Your task to perform on an android device: manage bookmarks in the chrome app Image 0: 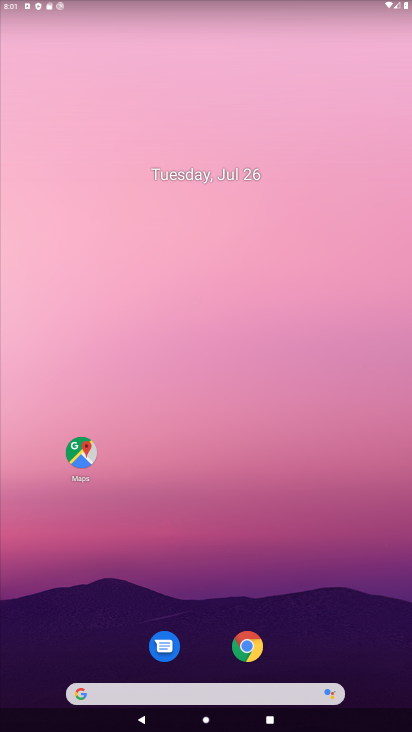
Step 0: click (63, 62)
Your task to perform on an android device: manage bookmarks in the chrome app Image 1: 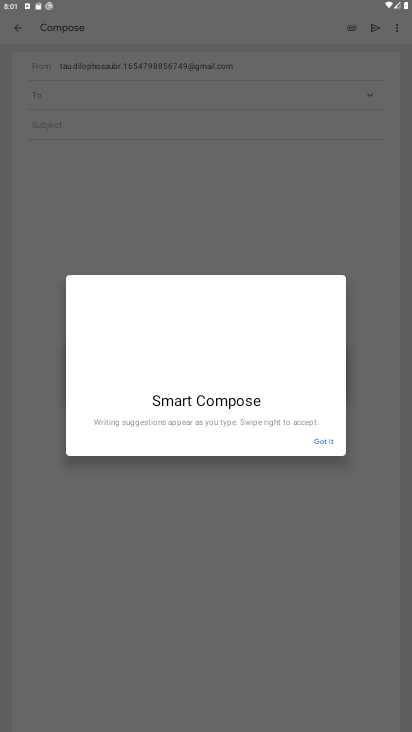
Step 1: press home button
Your task to perform on an android device: manage bookmarks in the chrome app Image 2: 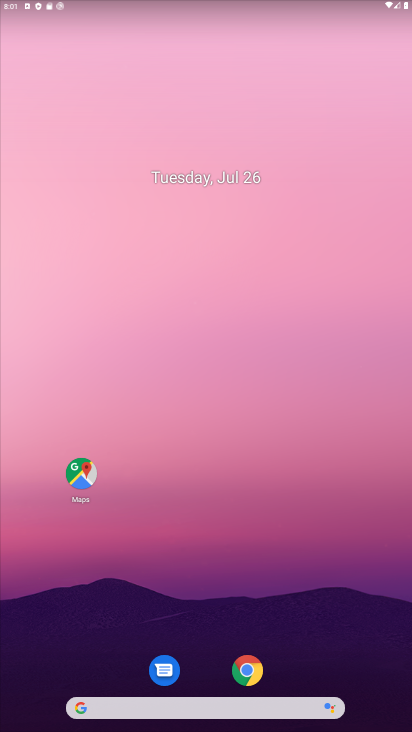
Step 2: click (247, 660)
Your task to perform on an android device: manage bookmarks in the chrome app Image 3: 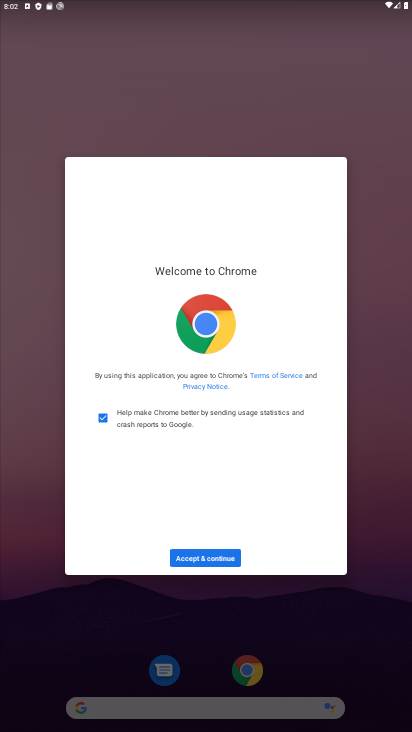
Step 3: click (215, 551)
Your task to perform on an android device: manage bookmarks in the chrome app Image 4: 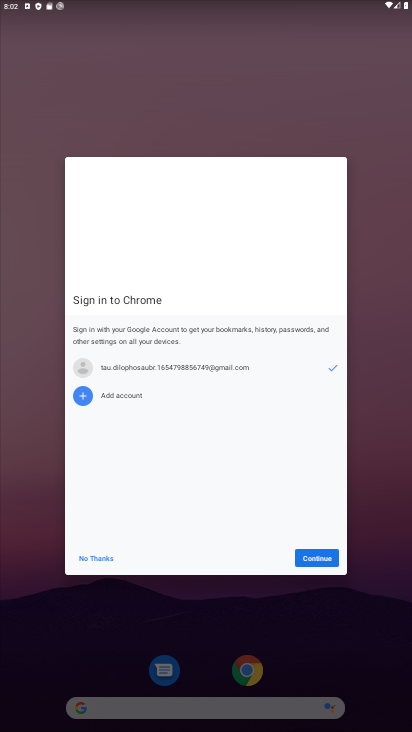
Step 4: click (331, 556)
Your task to perform on an android device: manage bookmarks in the chrome app Image 5: 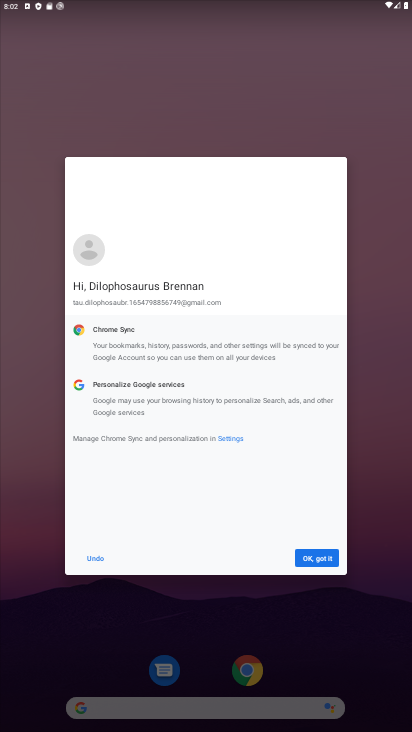
Step 5: click (329, 555)
Your task to perform on an android device: manage bookmarks in the chrome app Image 6: 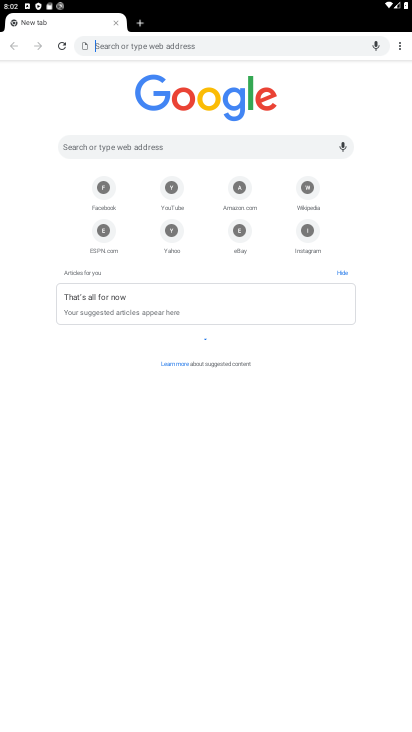
Step 6: click (394, 43)
Your task to perform on an android device: manage bookmarks in the chrome app Image 7: 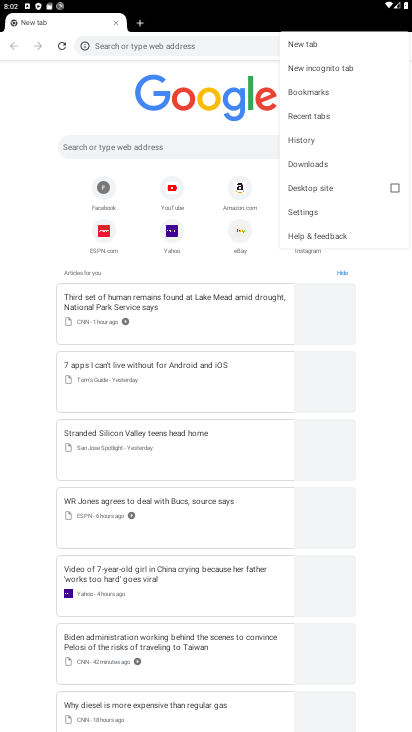
Step 7: click (313, 97)
Your task to perform on an android device: manage bookmarks in the chrome app Image 8: 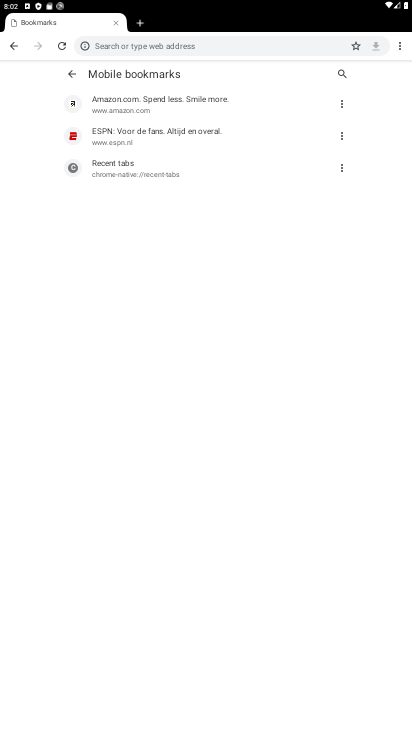
Step 8: click (353, 159)
Your task to perform on an android device: manage bookmarks in the chrome app Image 9: 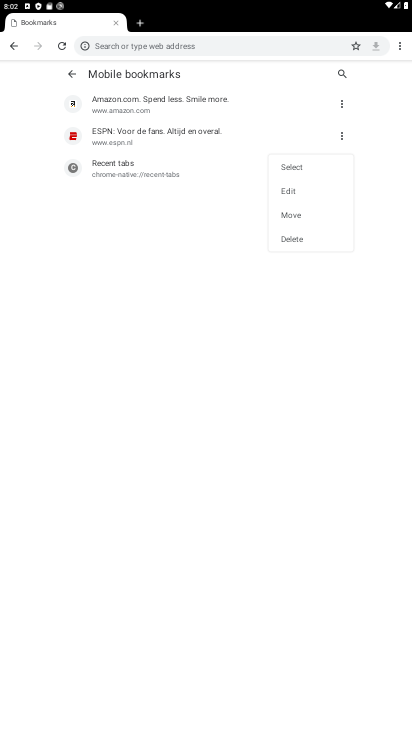
Step 9: click (286, 238)
Your task to perform on an android device: manage bookmarks in the chrome app Image 10: 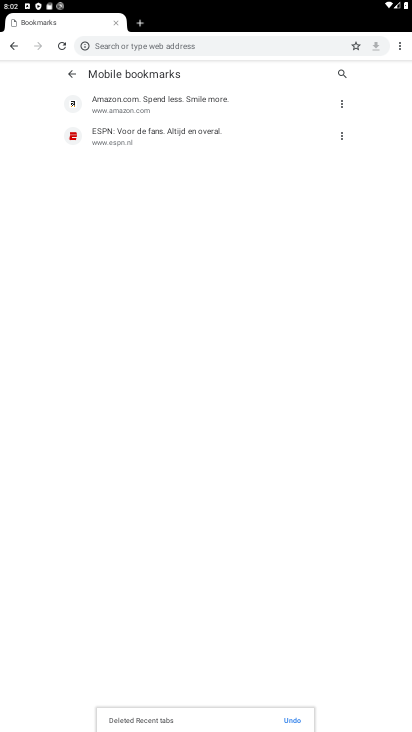
Step 10: task complete